Your task to perform on an android device: Check the news Image 0: 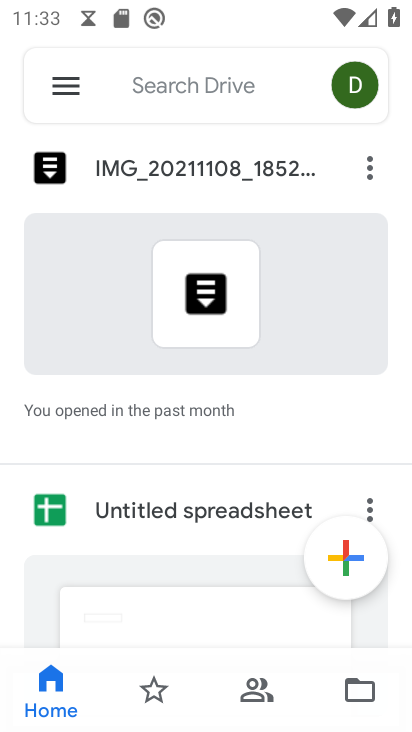
Step 0: press home button
Your task to perform on an android device: Check the news Image 1: 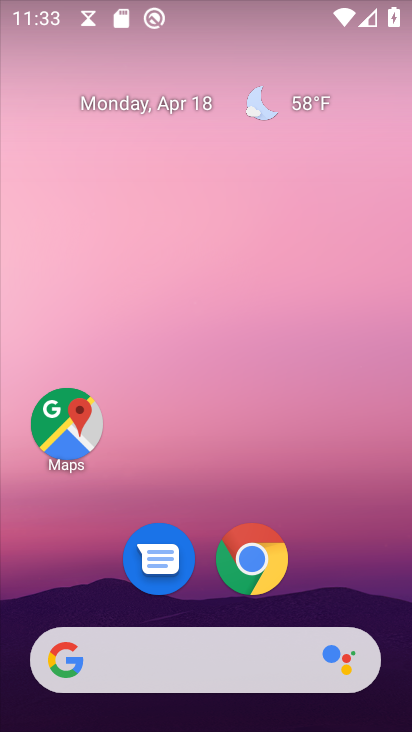
Step 1: drag from (332, 613) to (302, 351)
Your task to perform on an android device: Check the news Image 2: 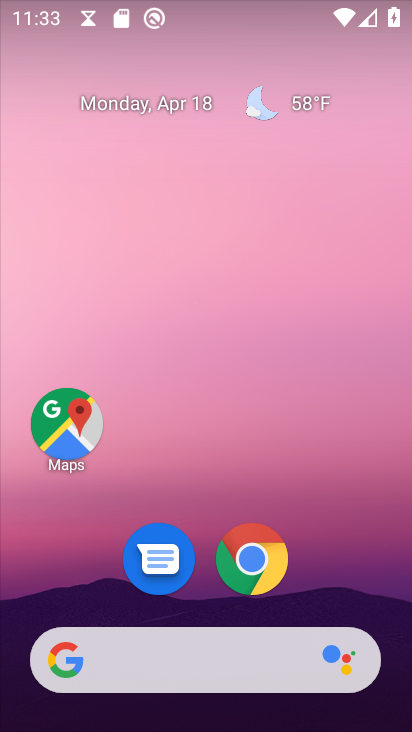
Step 2: click (245, 546)
Your task to perform on an android device: Check the news Image 3: 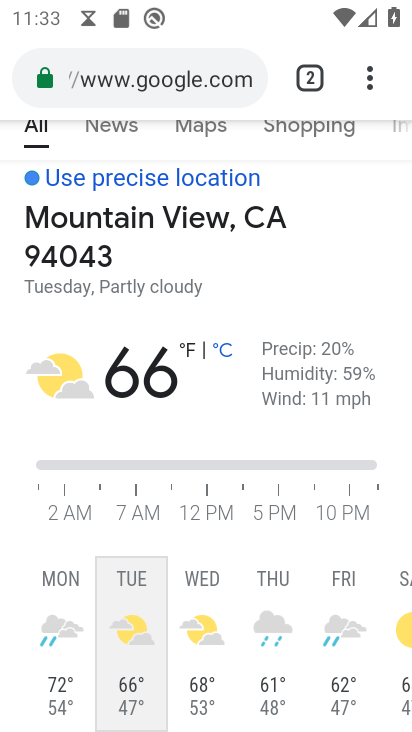
Step 3: click (114, 129)
Your task to perform on an android device: Check the news Image 4: 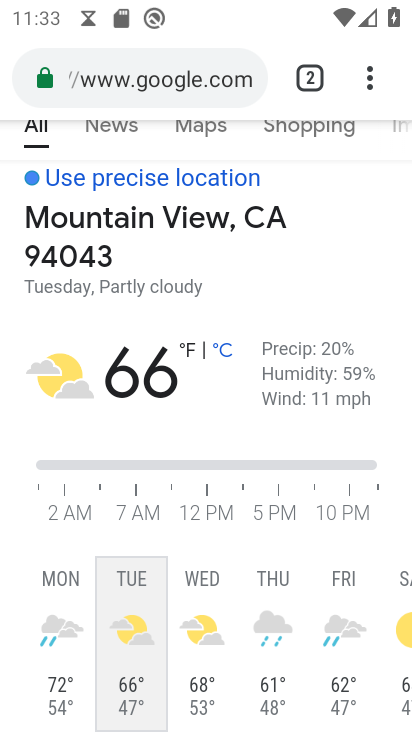
Step 4: click (312, 90)
Your task to perform on an android device: Check the news Image 5: 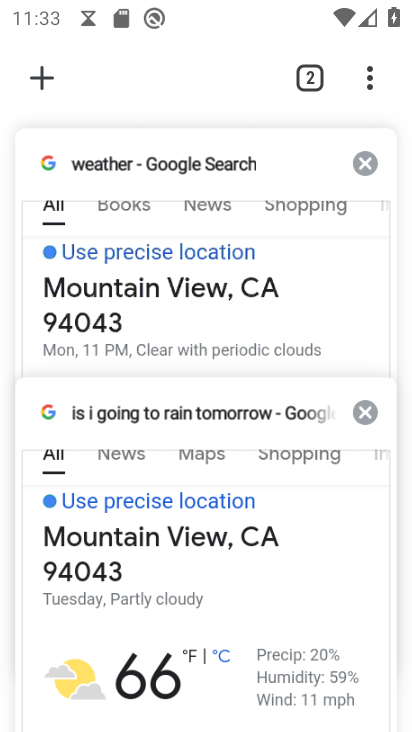
Step 5: click (53, 77)
Your task to perform on an android device: Check the news Image 6: 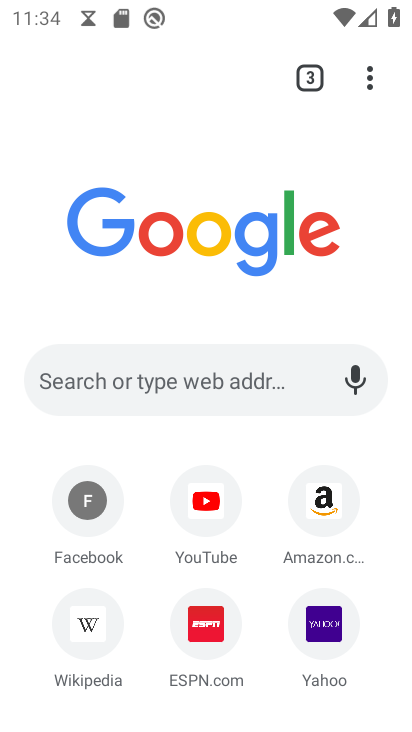
Step 6: click (131, 382)
Your task to perform on an android device: Check the news Image 7: 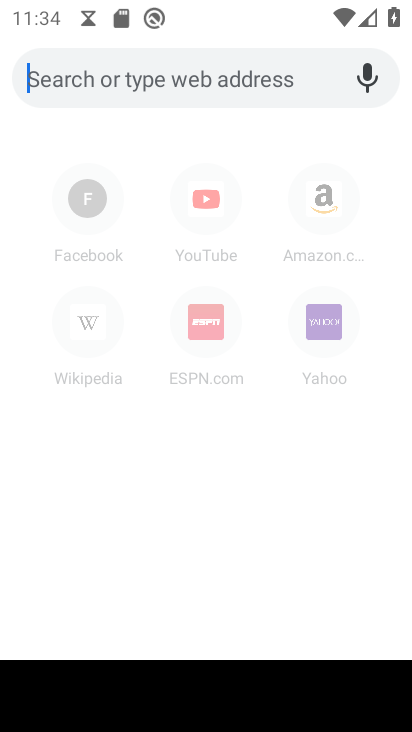
Step 7: press back button
Your task to perform on an android device: Check the news Image 8: 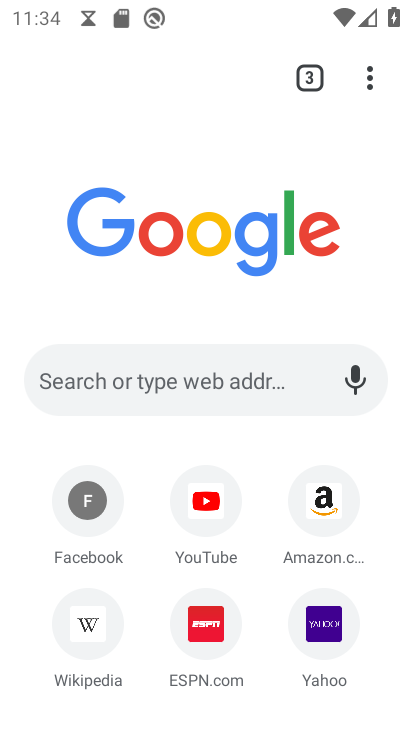
Step 8: click (314, 81)
Your task to perform on an android device: Check the news Image 9: 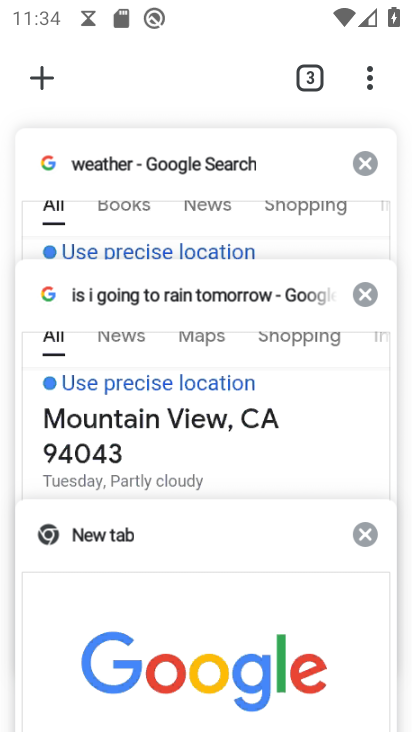
Step 9: click (168, 372)
Your task to perform on an android device: Check the news Image 10: 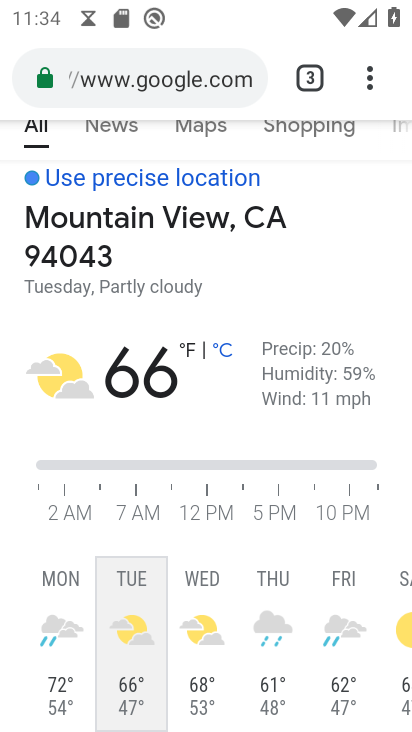
Step 10: click (116, 130)
Your task to perform on an android device: Check the news Image 11: 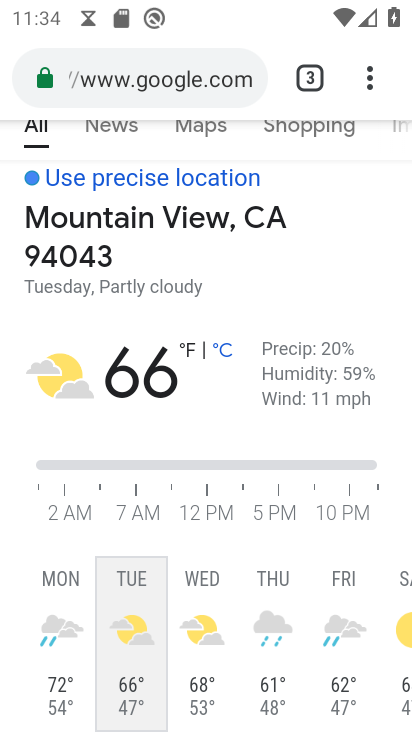
Step 11: drag from (261, 320) to (264, 493)
Your task to perform on an android device: Check the news Image 12: 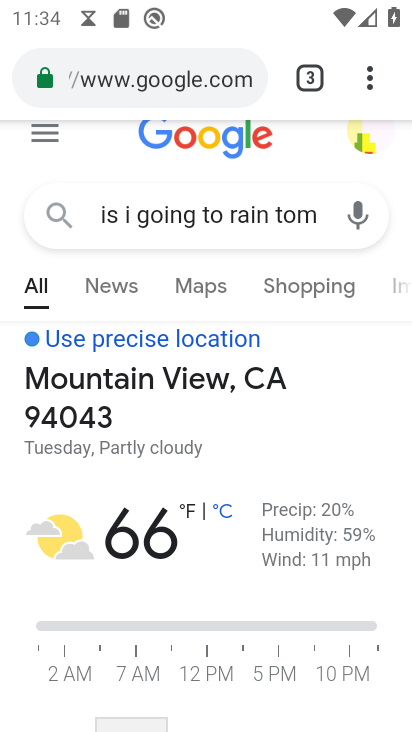
Step 12: click (109, 282)
Your task to perform on an android device: Check the news Image 13: 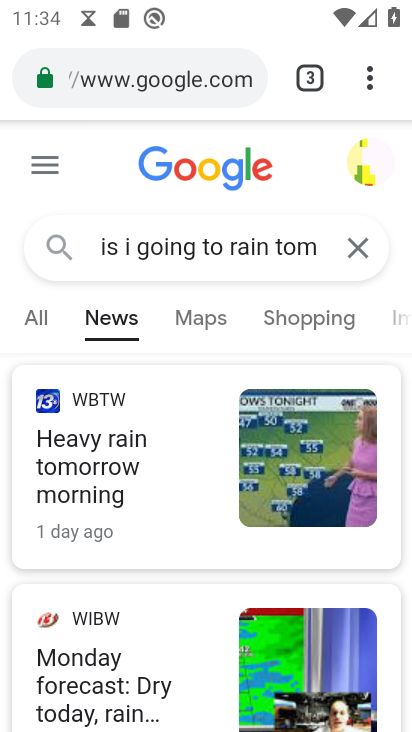
Step 13: task complete